Your task to perform on an android device: Search for Mexican restaurants on Maps Image 0: 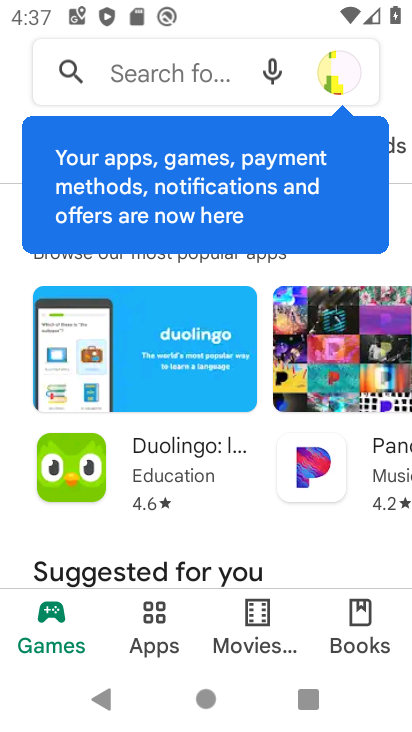
Step 0: press home button
Your task to perform on an android device: Search for Mexican restaurants on Maps Image 1: 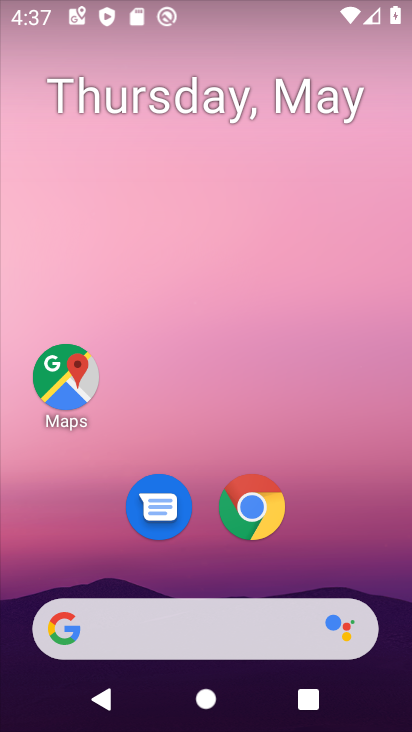
Step 1: drag from (332, 554) to (215, 206)
Your task to perform on an android device: Search for Mexican restaurants on Maps Image 2: 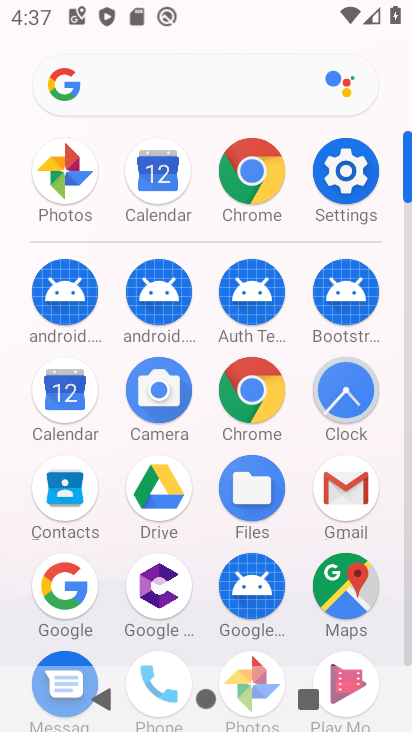
Step 2: drag from (290, 620) to (273, 212)
Your task to perform on an android device: Search for Mexican restaurants on Maps Image 3: 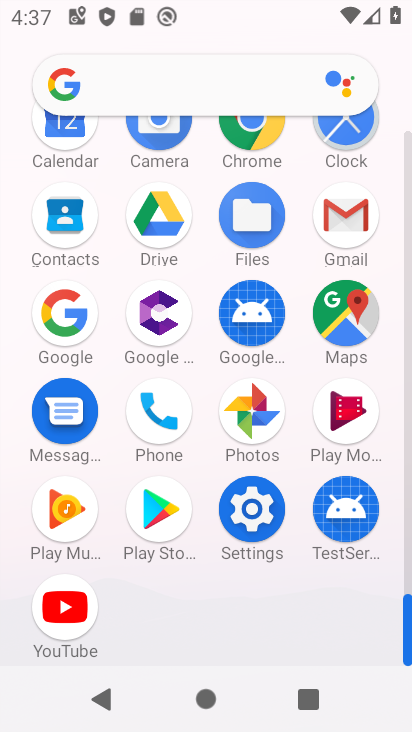
Step 3: click (347, 314)
Your task to perform on an android device: Search for Mexican restaurants on Maps Image 4: 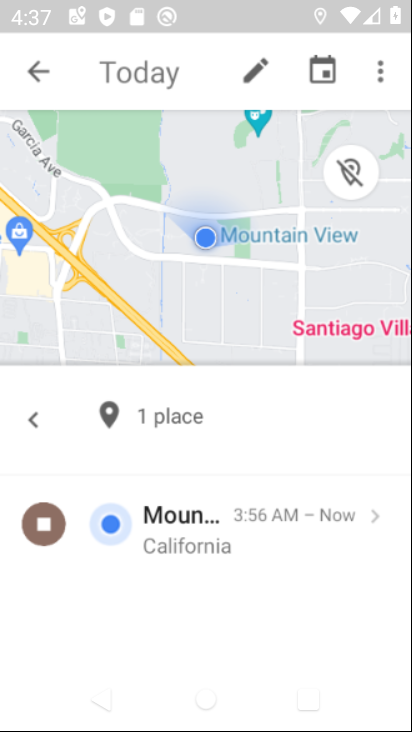
Step 4: click (347, 314)
Your task to perform on an android device: Search for Mexican restaurants on Maps Image 5: 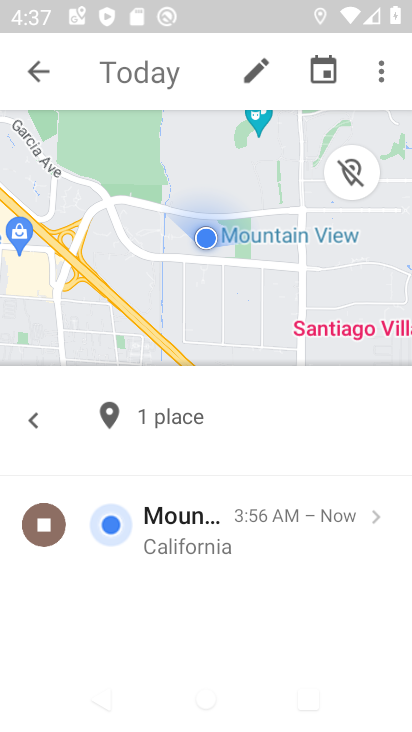
Step 5: click (112, 67)
Your task to perform on an android device: Search for Mexican restaurants on Maps Image 6: 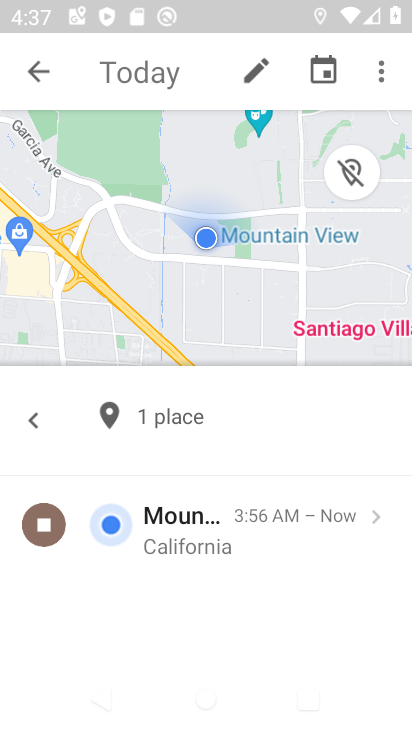
Step 6: click (47, 64)
Your task to perform on an android device: Search for Mexican restaurants on Maps Image 7: 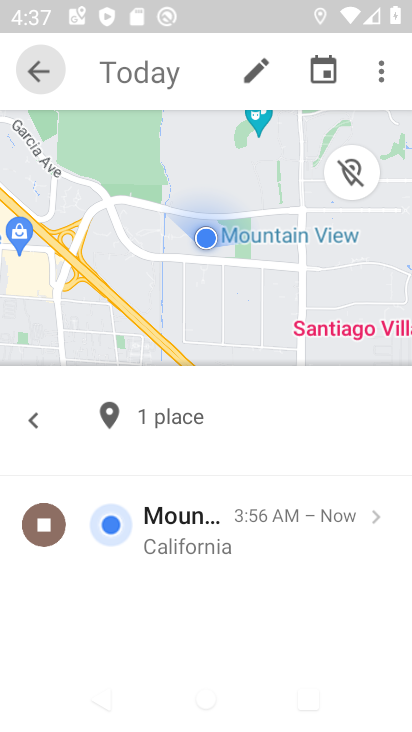
Step 7: click (41, 73)
Your task to perform on an android device: Search for Mexican restaurants on Maps Image 8: 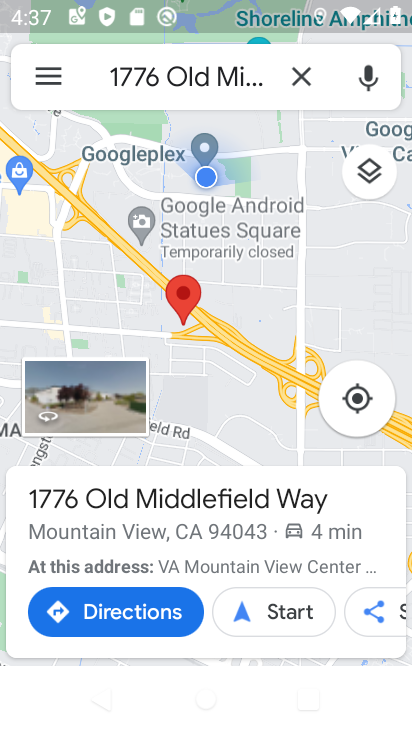
Step 8: click (118, 66)
Your task to perform on an android device: Search for Mexican restaurants on Maps Image 9: 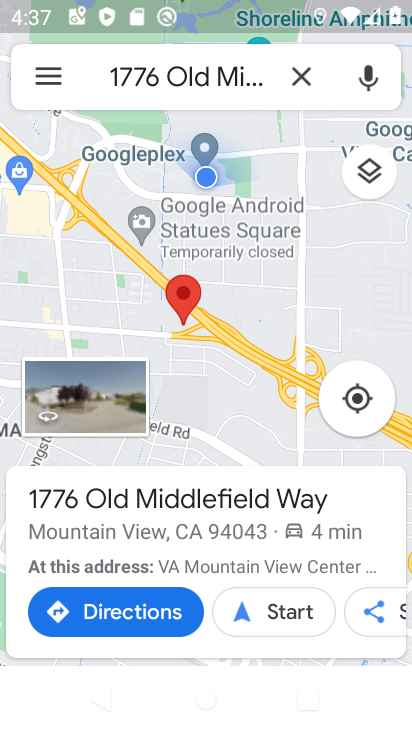
Step 9: click (121, 73)
Your task to perform on an android device: Search for Mexican restaurants on Maps Image 10: 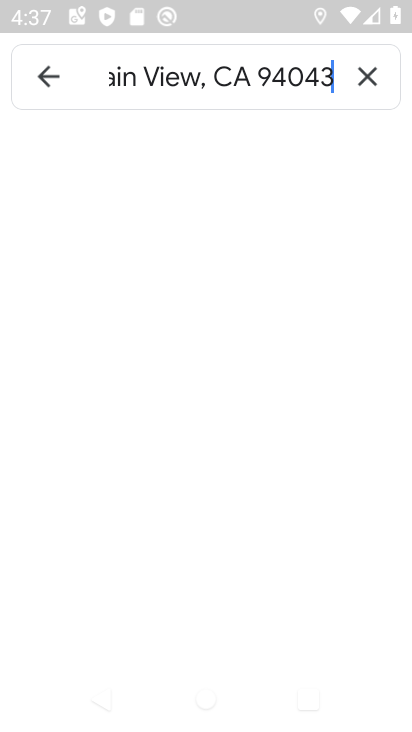
Step 10: click (104, 70)
Your task to perform on an android device: Search for Mexican restaurants on Maps Image 11: 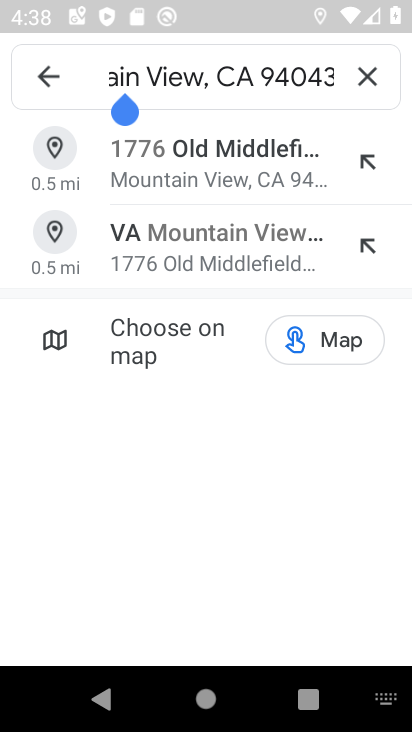
Step 11: click (365, 66)
Your task to perform on an android device: Search for Mexican restaurants on Maps Image 12: 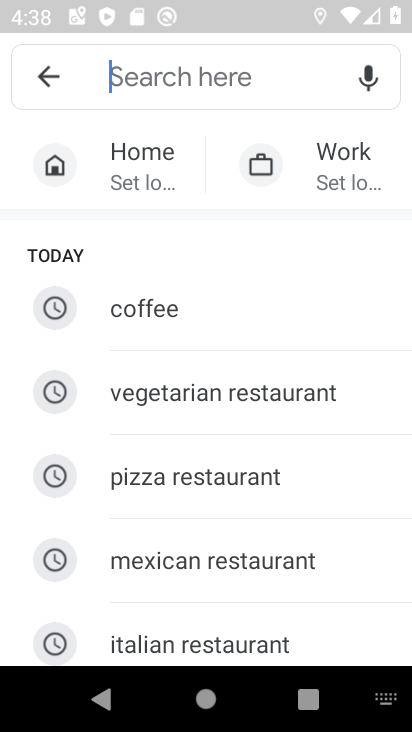
Step 12: click (177, 568)
Your task to perform on an android device: Search for Mexican restaurants on Maps Image 13: 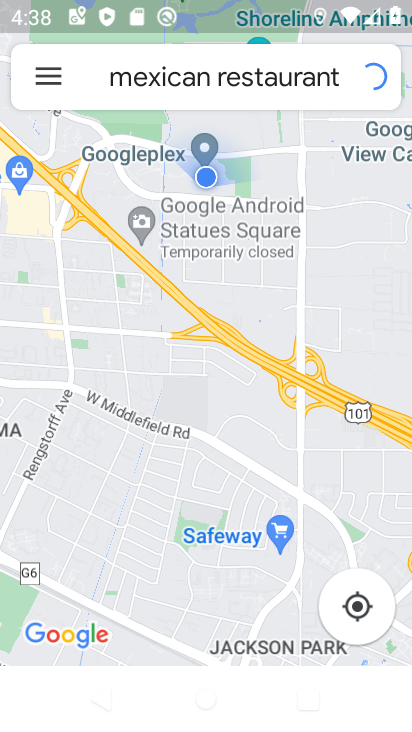
Step 13: task complete